Your task to perform on an android device: Open Youtube and go to the subscriptions tab Image 0: 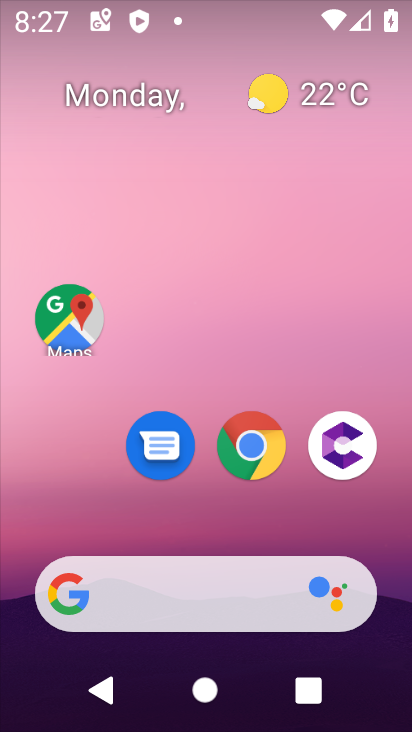
Step 0: drag from (324, 353) to (335, 20)
Your task to perform on an android device: Open Youtube and go to the subscriptions tab Image 1: 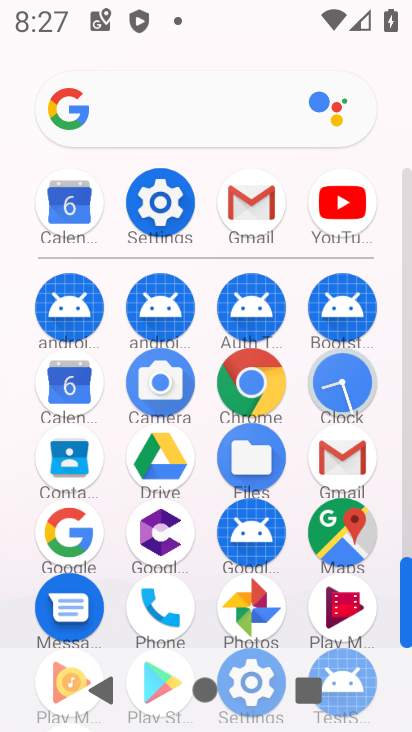
Step 1: click (351, 220)
Your task to perform on an android device: Open Youtube and go to the subscriptions tab Image 2: 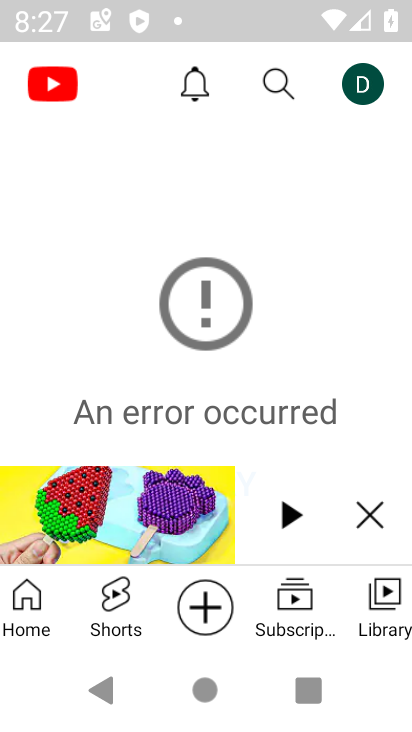
Step 2: click (288, 607)
Your task to perform on an android device: Open Youtube and go to the subscriptions tab Image 3: 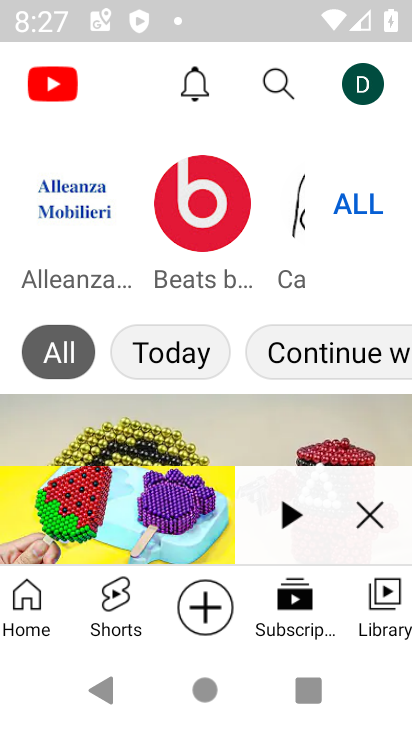
Step 3: task complete